Your task to perform on an android device: Go to Amazon Image 0: 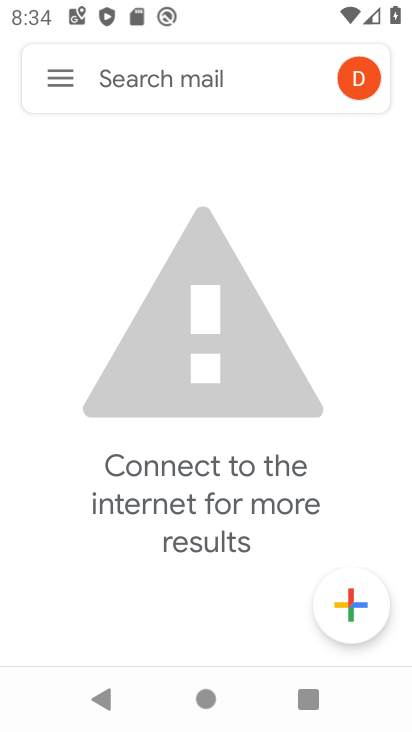
Step 0: press home button
Your task to perform on an android device: Go to Amazon Image 1: 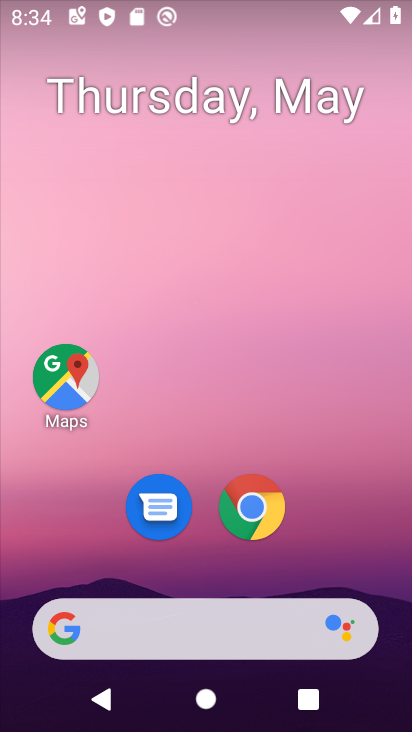
Step 1: click (268, 510)
Your task to perform on an android device: Go to Amazon Image 2: 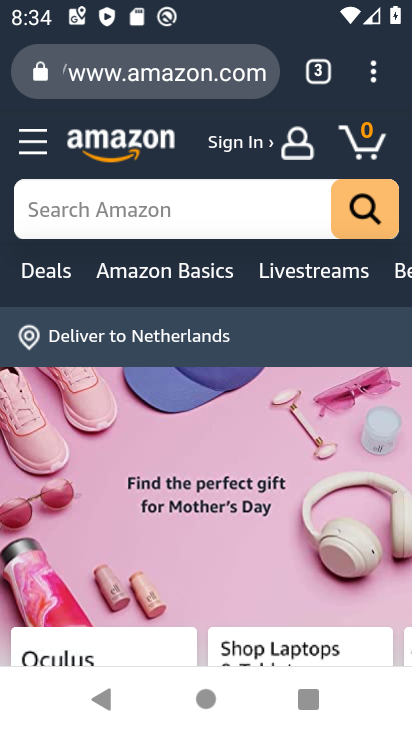
Step 2: task complete